Your task to perform on an android device: add a label to a message in the gmail app Image 0: 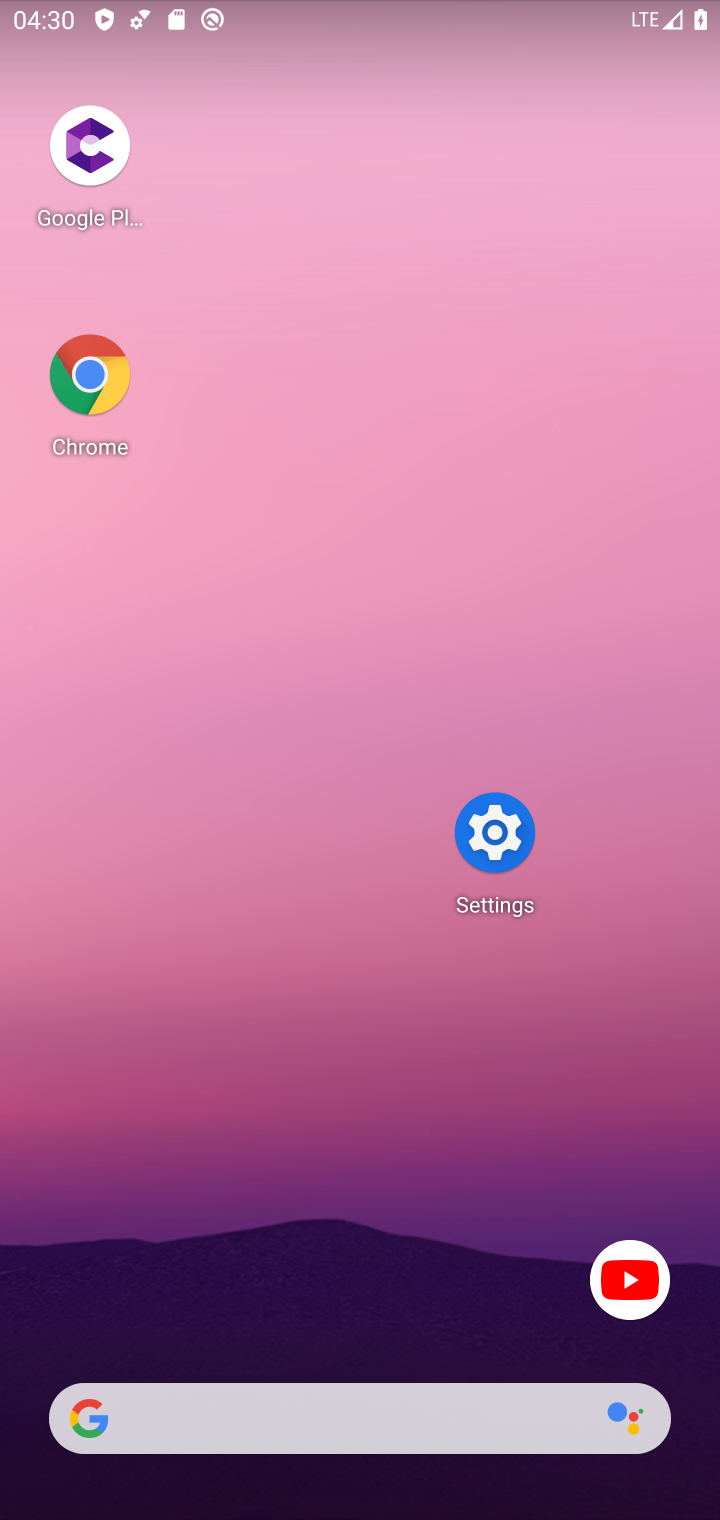
Step 0: click (308, 411)
Your task to perform on an android device: add a label to a message in the gmail app Image 1: 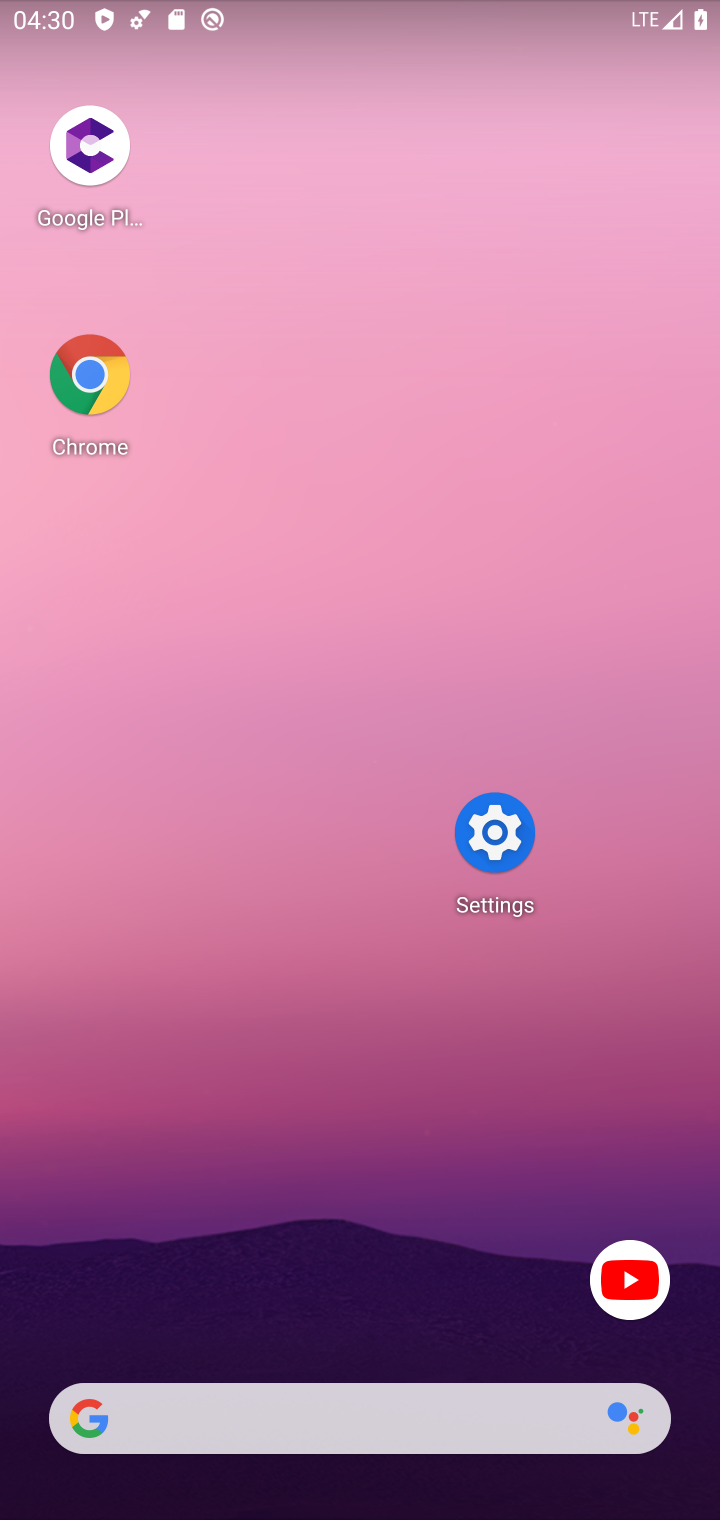
Step 1: click (377, 950)
Your task to perform on an android device: add a label to a message in the gmail app Image 2: 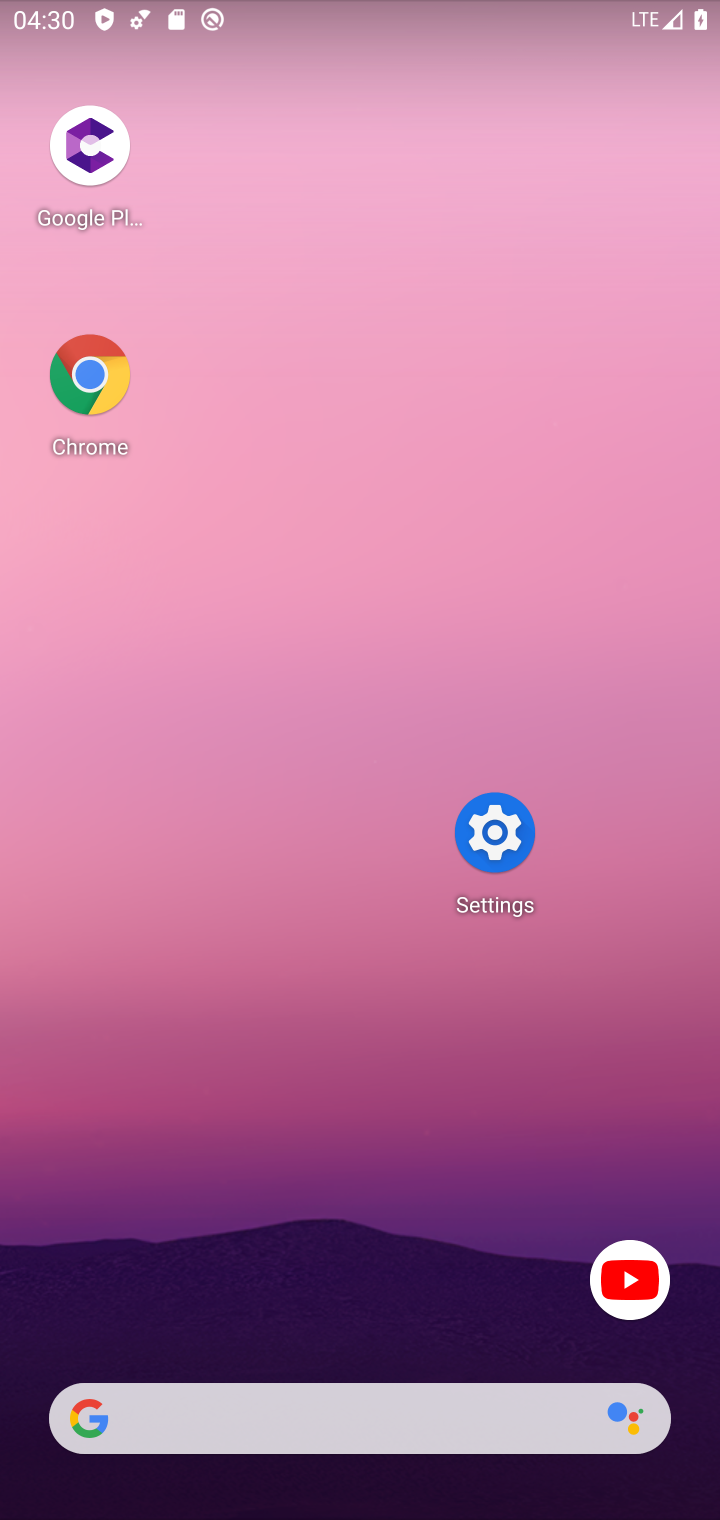
Step 2: drag from (280, 1057) to (531, 508)
Your task to perform on an android device: add a label to a message in the gmail app Image 3: 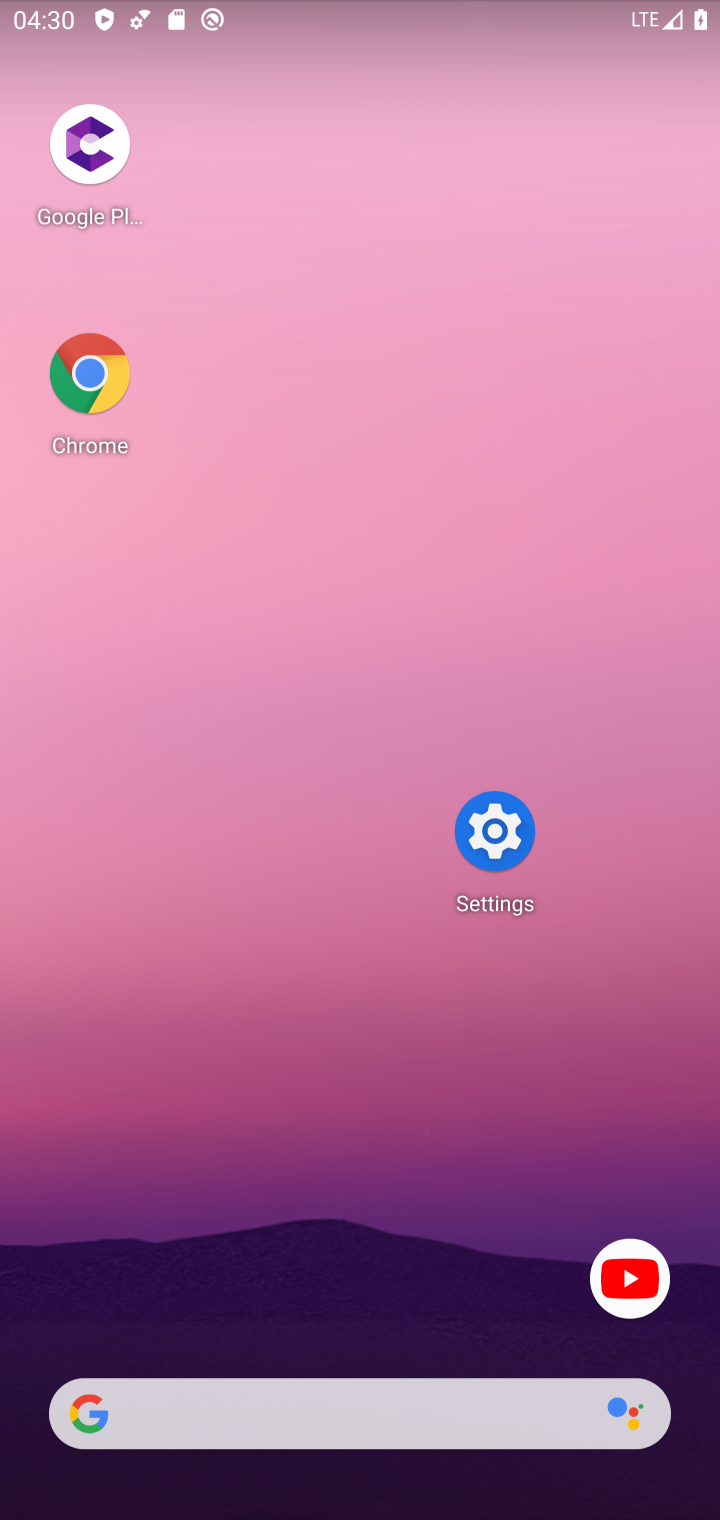
Step 3: drag from (501, 838) to (507, 377)
Your task to perform on an android device: add a label to a message in the gmail app Image 4: 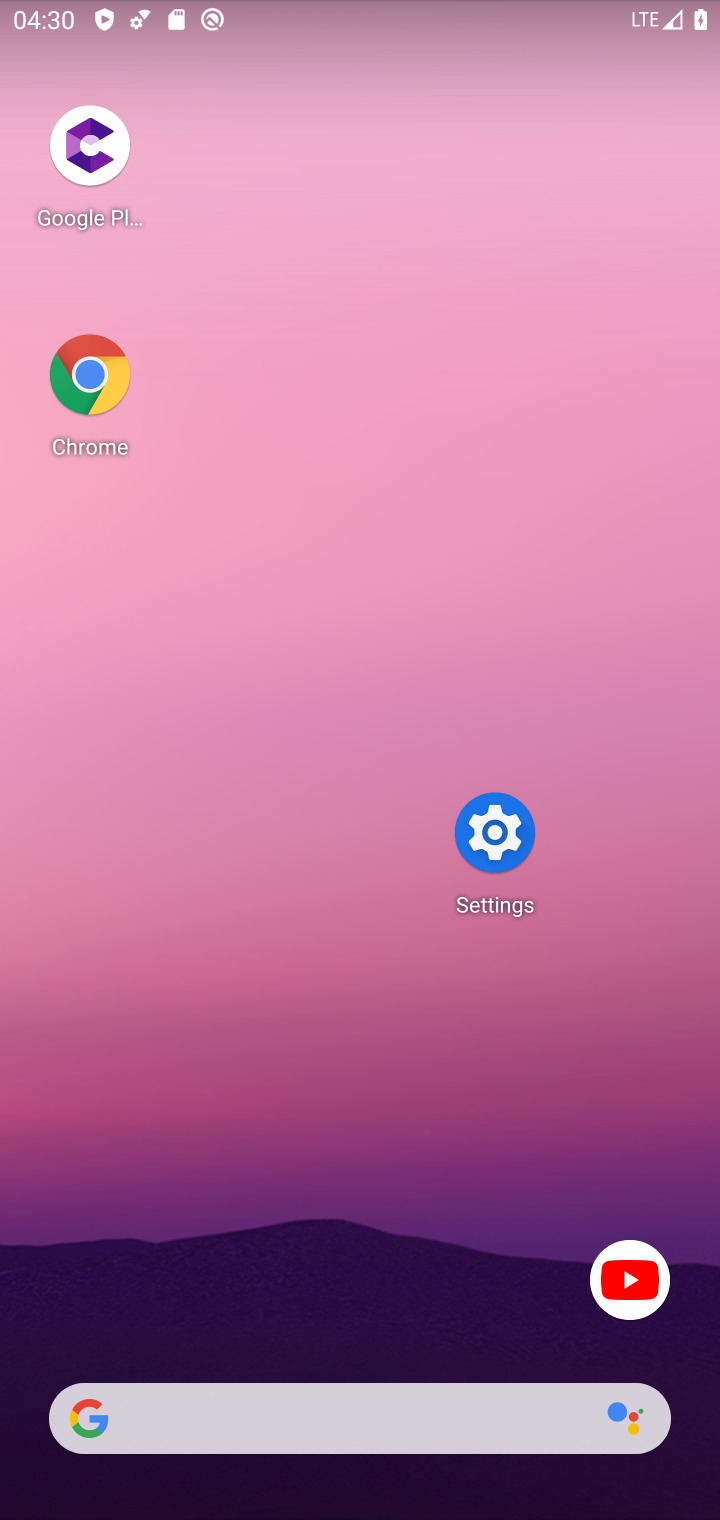
Step 4: click (427, 470)
Your task to perform on an android device: add a label to a message in the gmail app Image 5: 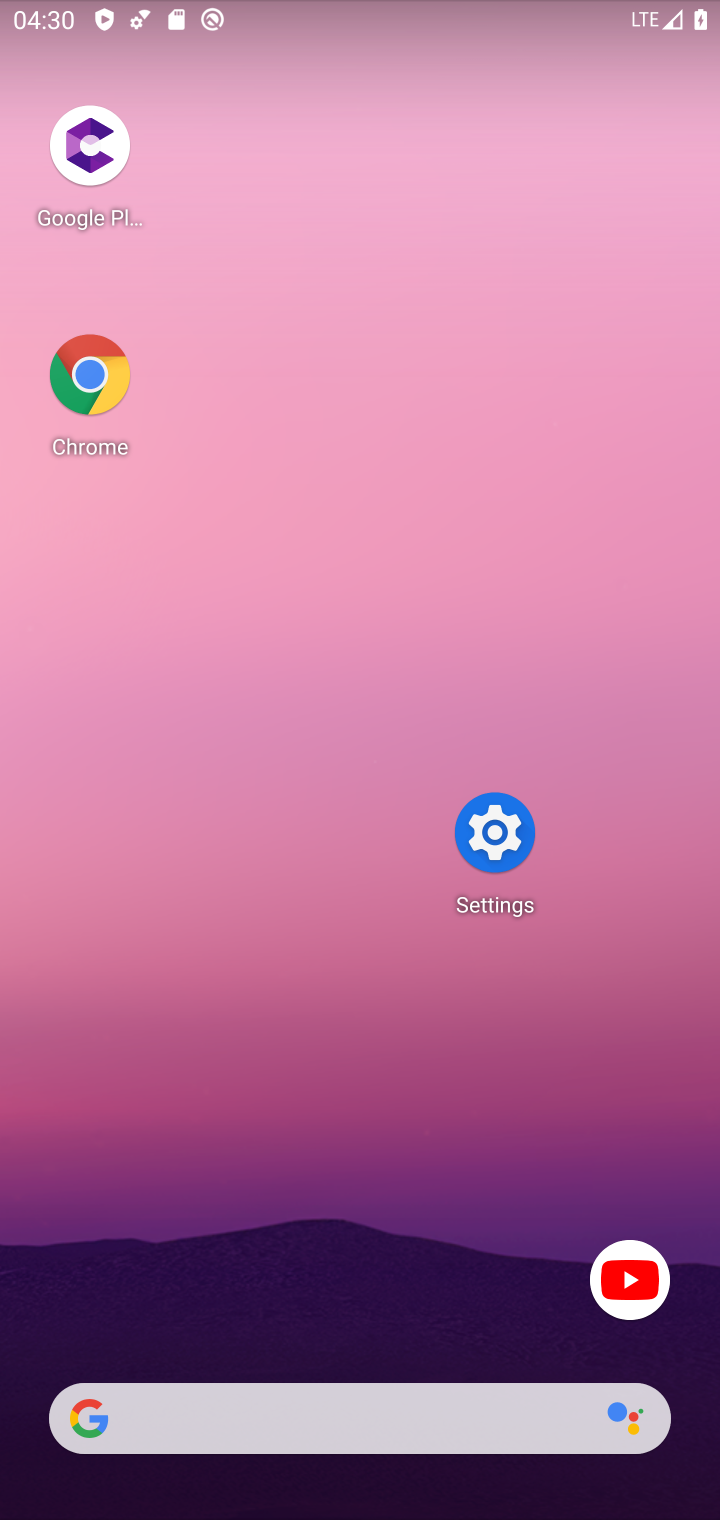
Step 5: drag from (316, 314) to (476, 234)
Your task to perform on an android device: add a label to a message in the gmail app Image 6: 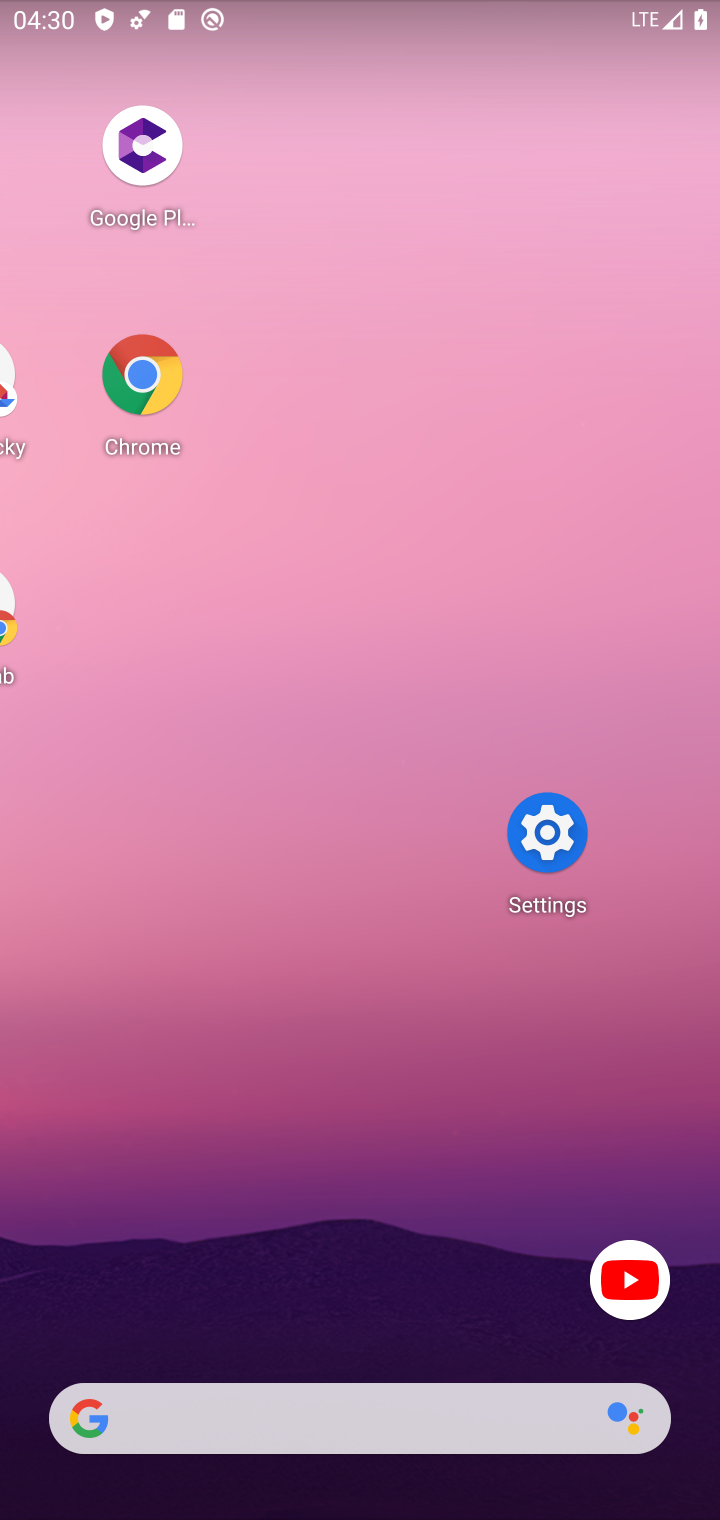
Step 6: drag from (327, 13) to (480, 548)
Your task to perform on an android device: add a label to a message in the gmail app Image 7: 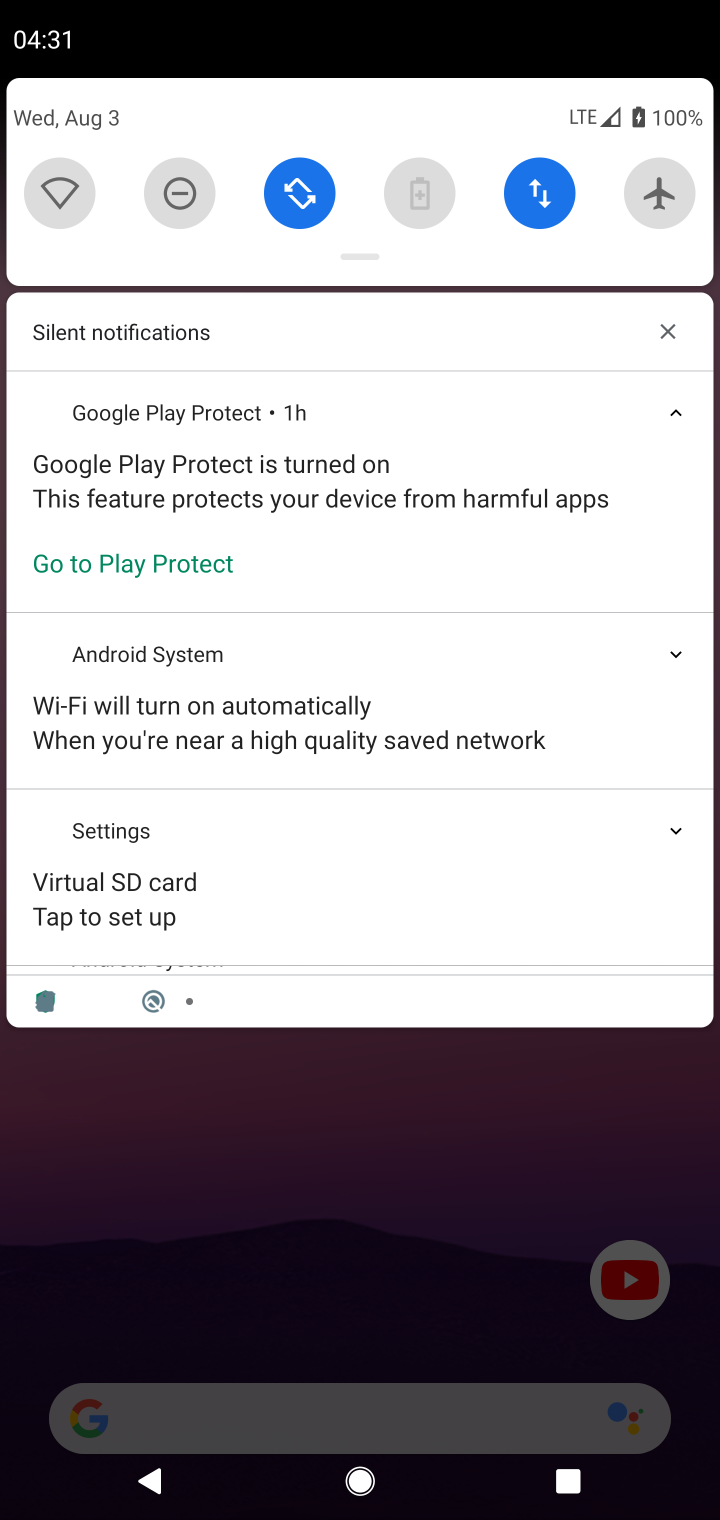
Step 7: drag from (549, 1117) to (541, 178)
Your task to perform on an android device: add a label to a message in the gmail app Image 8: 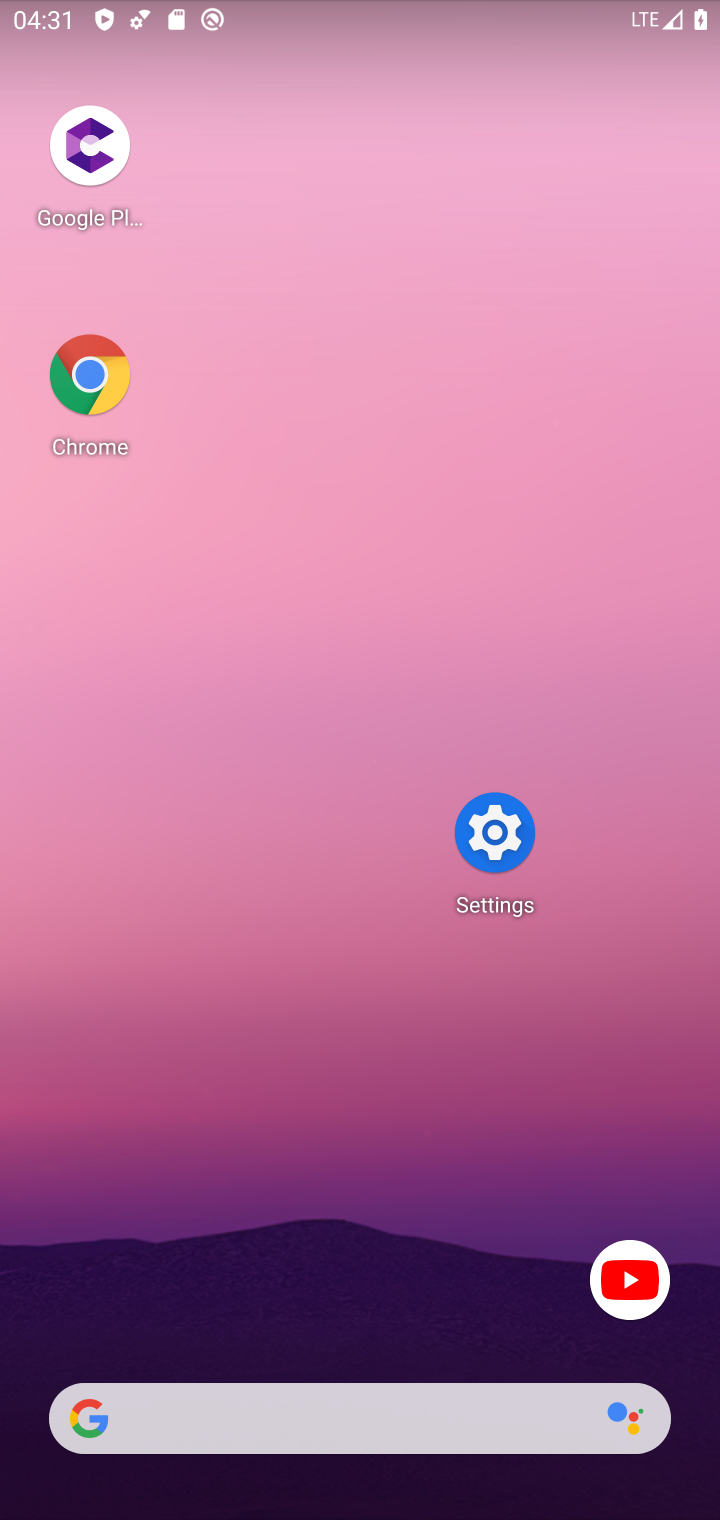
Step 8: click (23, 599)
Your task to perform on an android device: add a label to a message in the gmail app Image 9: 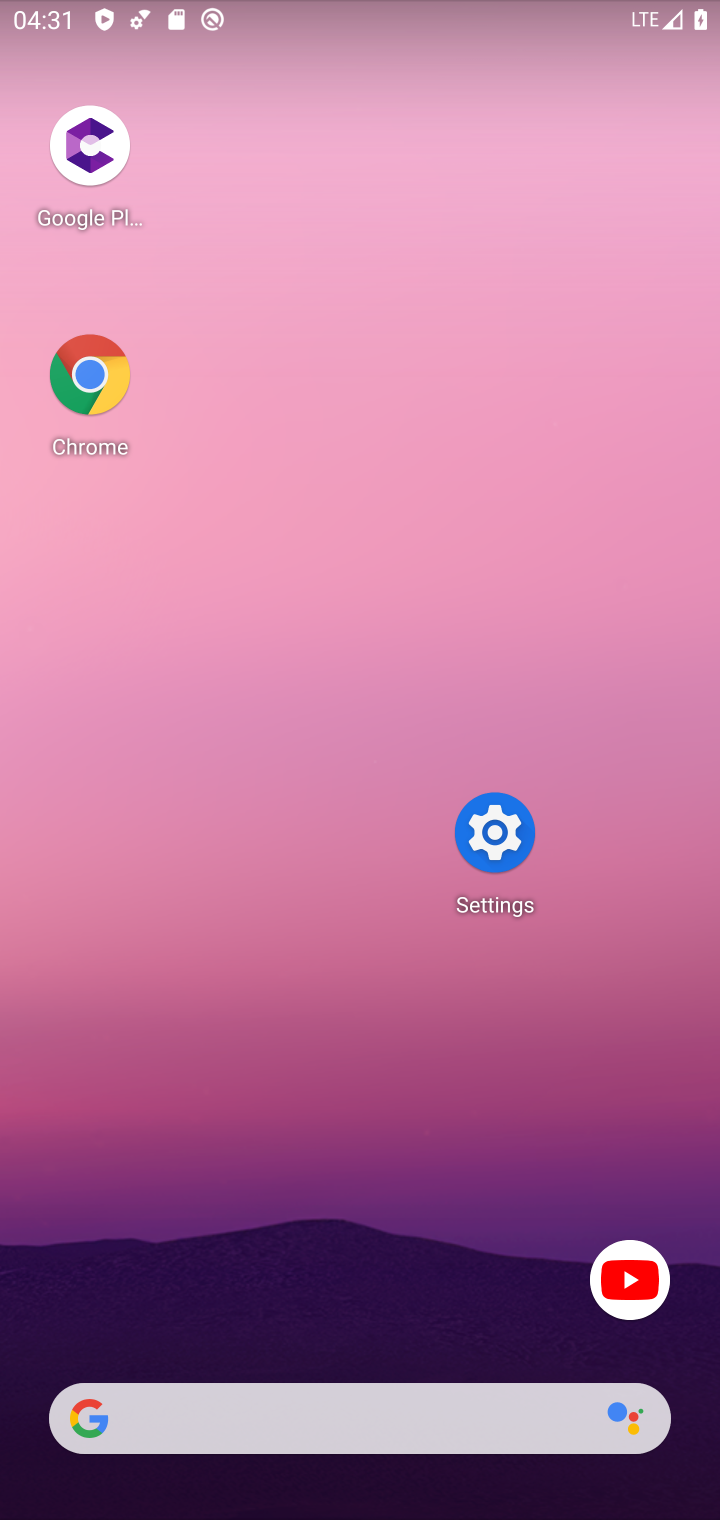
Step 9: press back button
Your task to perform on an android device: add a label to a message in the gmail app Image 10: 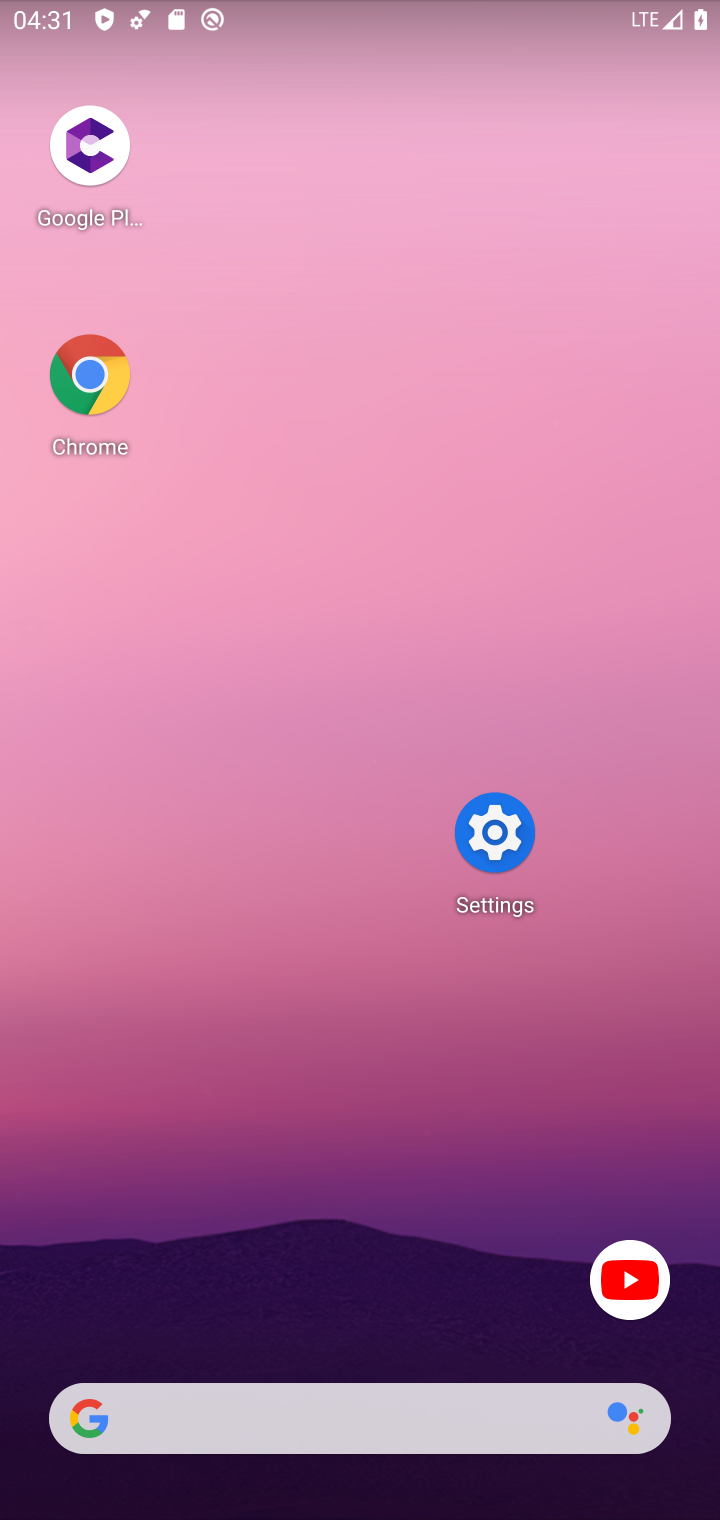
Step 10: drag from (418, 256) to (362, 331)
Your task to perform on an android device: add a label to a message in the gmail app Image 11: 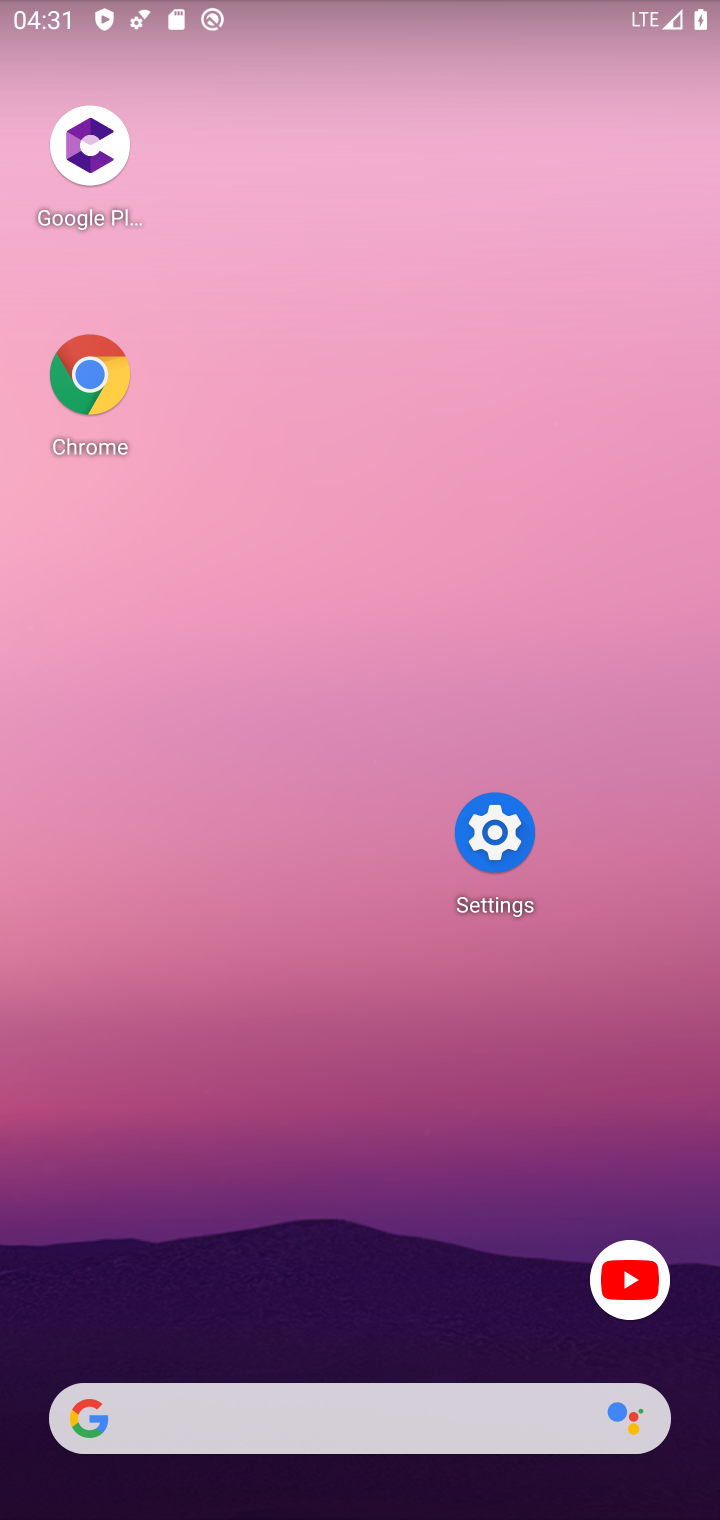
Step 11: drag from (468, 961) to (451, 57)
Your task to perform on an android device: add a label to a message in the gmail app Image 12: 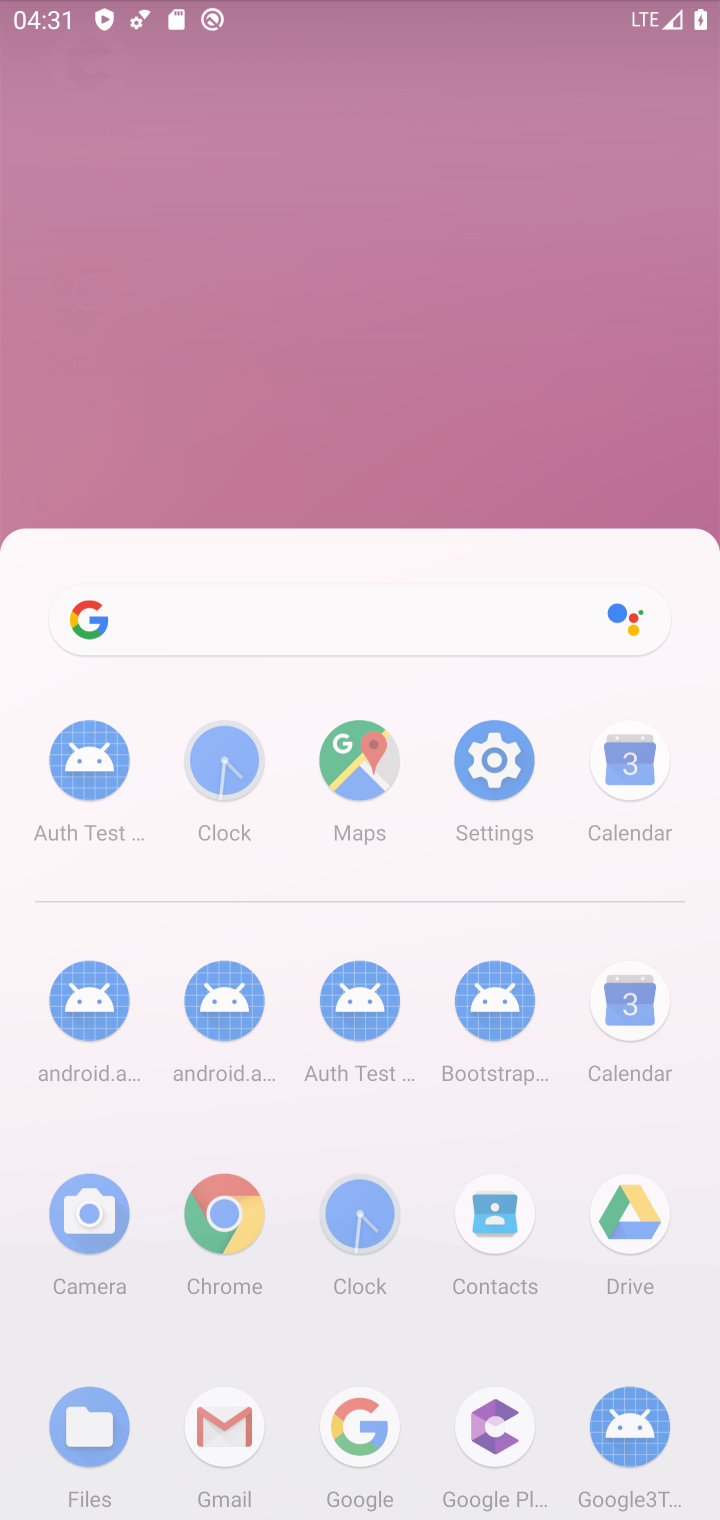
Step 12: drag from (419, 173) to (418, 30)
Your task to perform on an android device: add a label to a message in the gmail app Image 13: 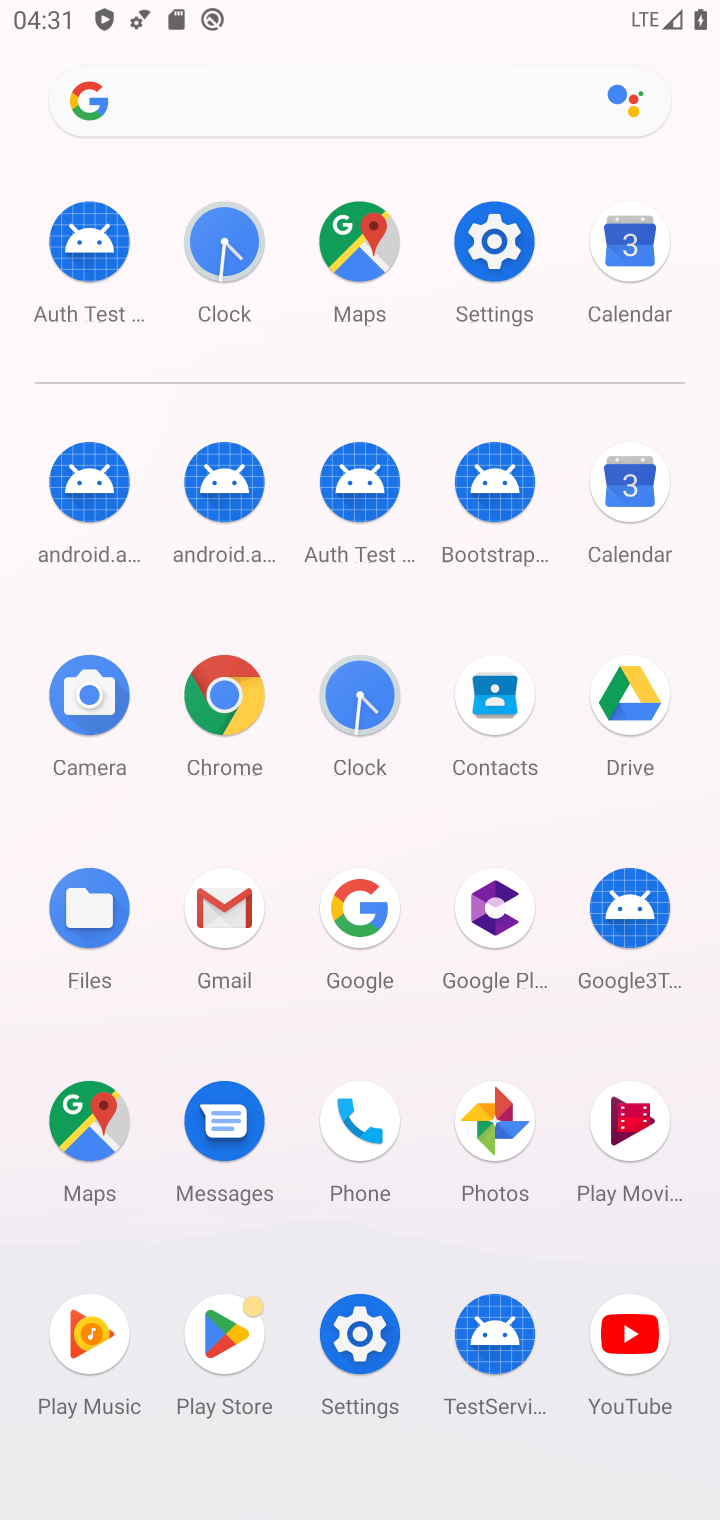
Step 13: click (221, 926)
Your task to perform on an android device: add a label to a message in the gmail app Image 14: 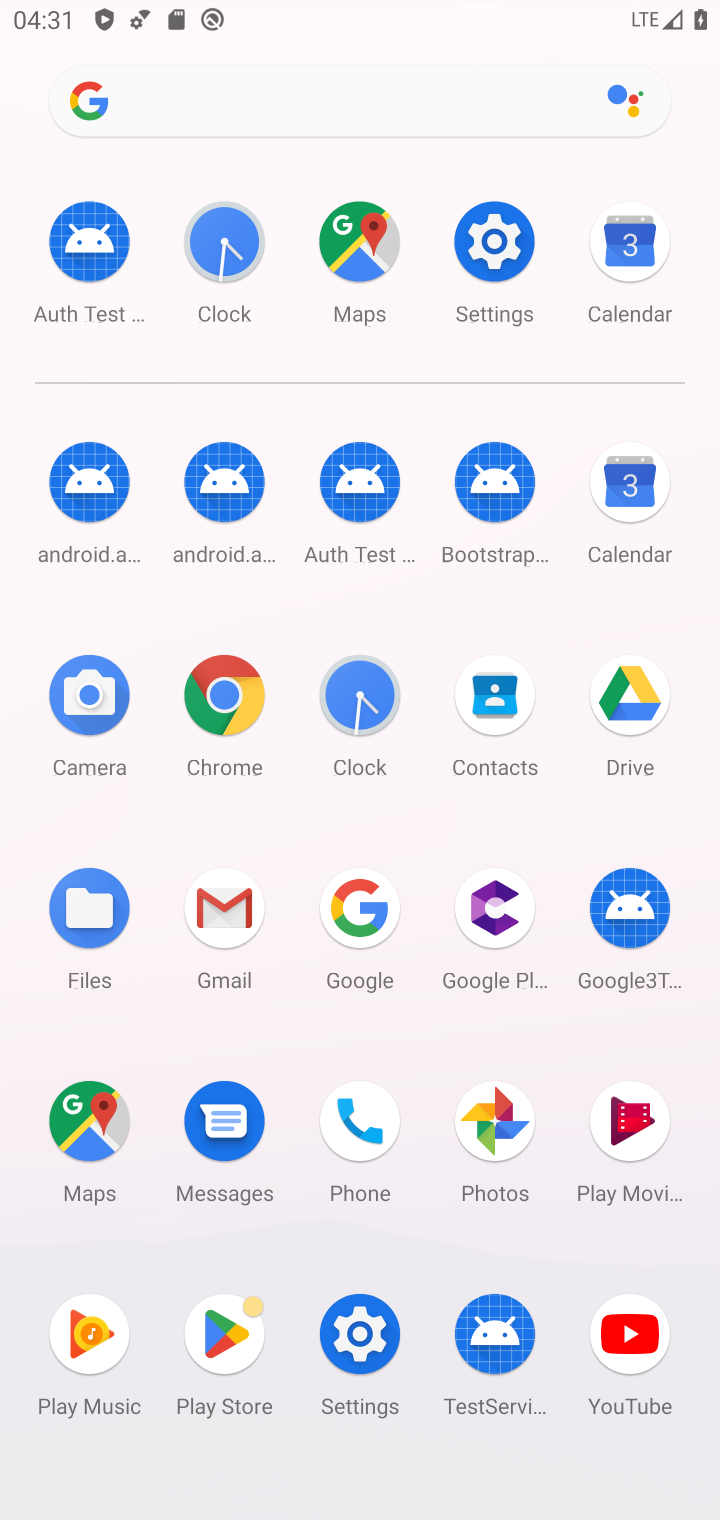
Step 14: click (230, 913)
Your task to perform on an android device: add a label to a message in the gmail app Image 15: 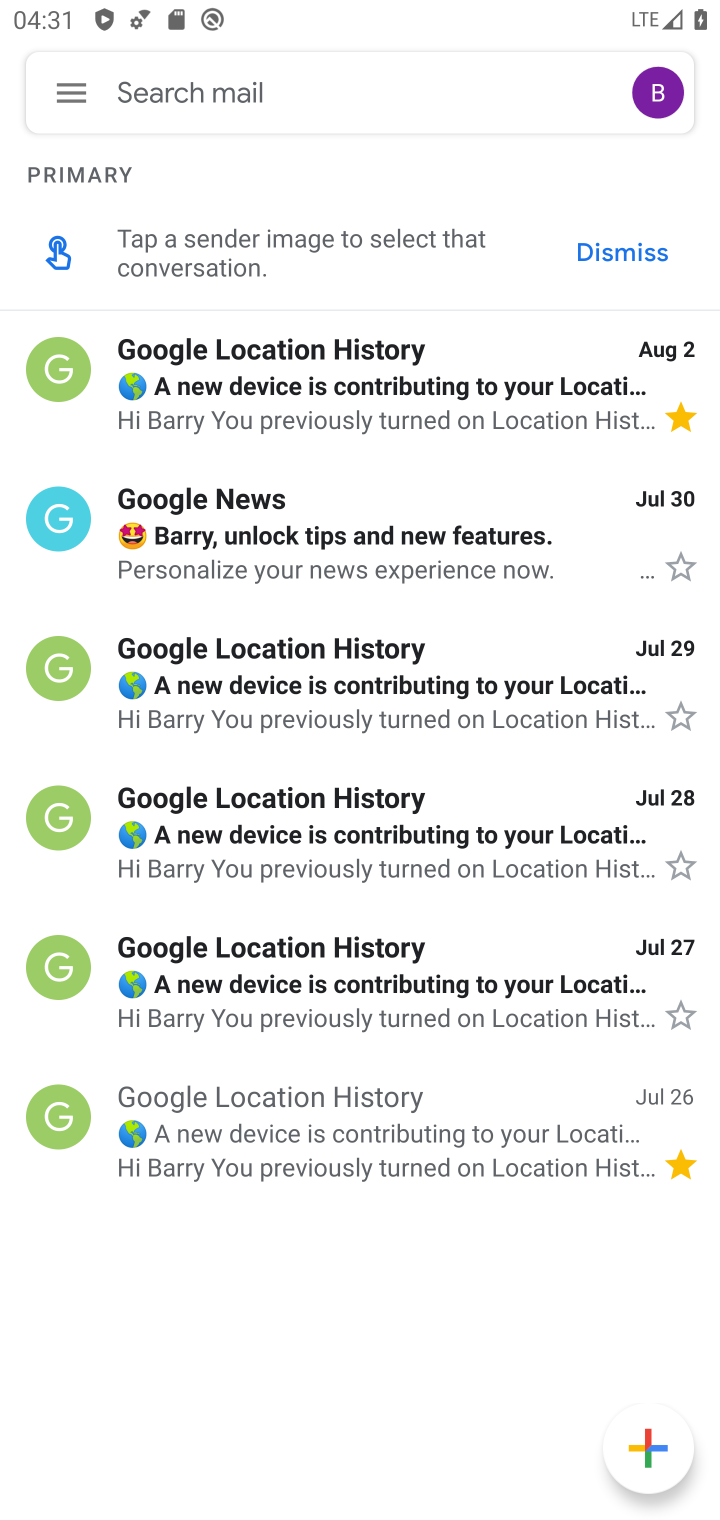
Step 15: click (234, 915)
Your task to perform on an android device: add a label to a message in the gmail app Image 16: 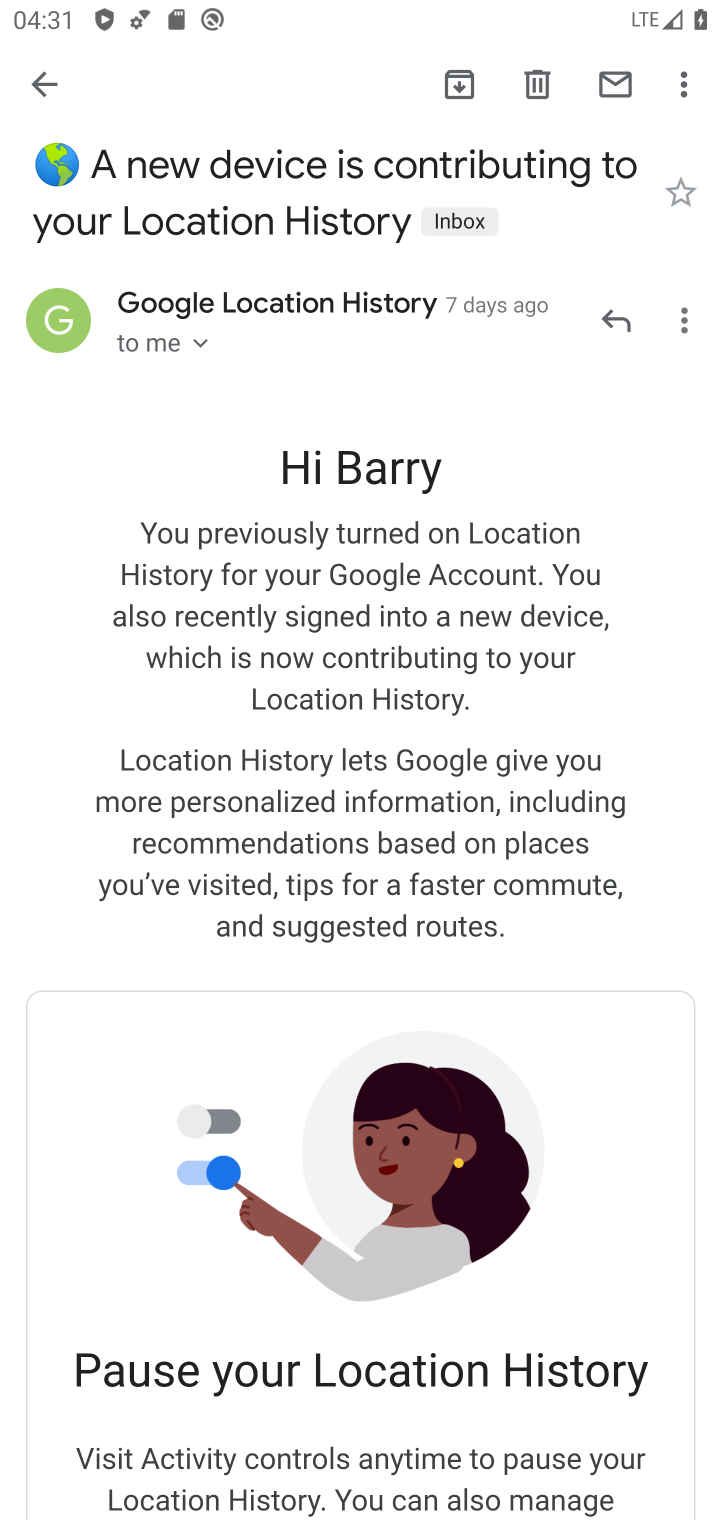
Step 16: click (37, 79)
Your task to perform on an android device: add a label to a message in the gmail app Image 17: 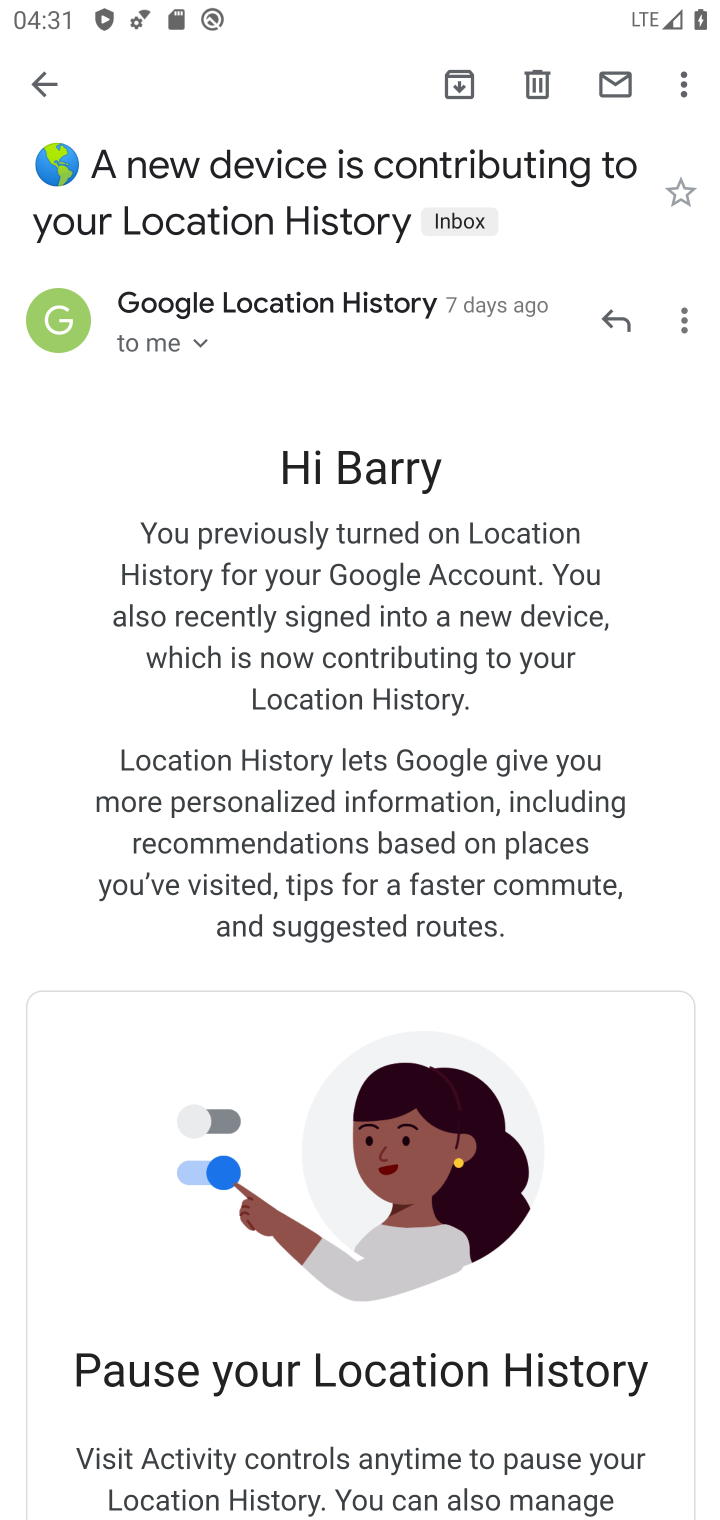
Step 17: click (37, 79)
Your task to perform on an android device: add a label to a message in the gmail app Image 18: 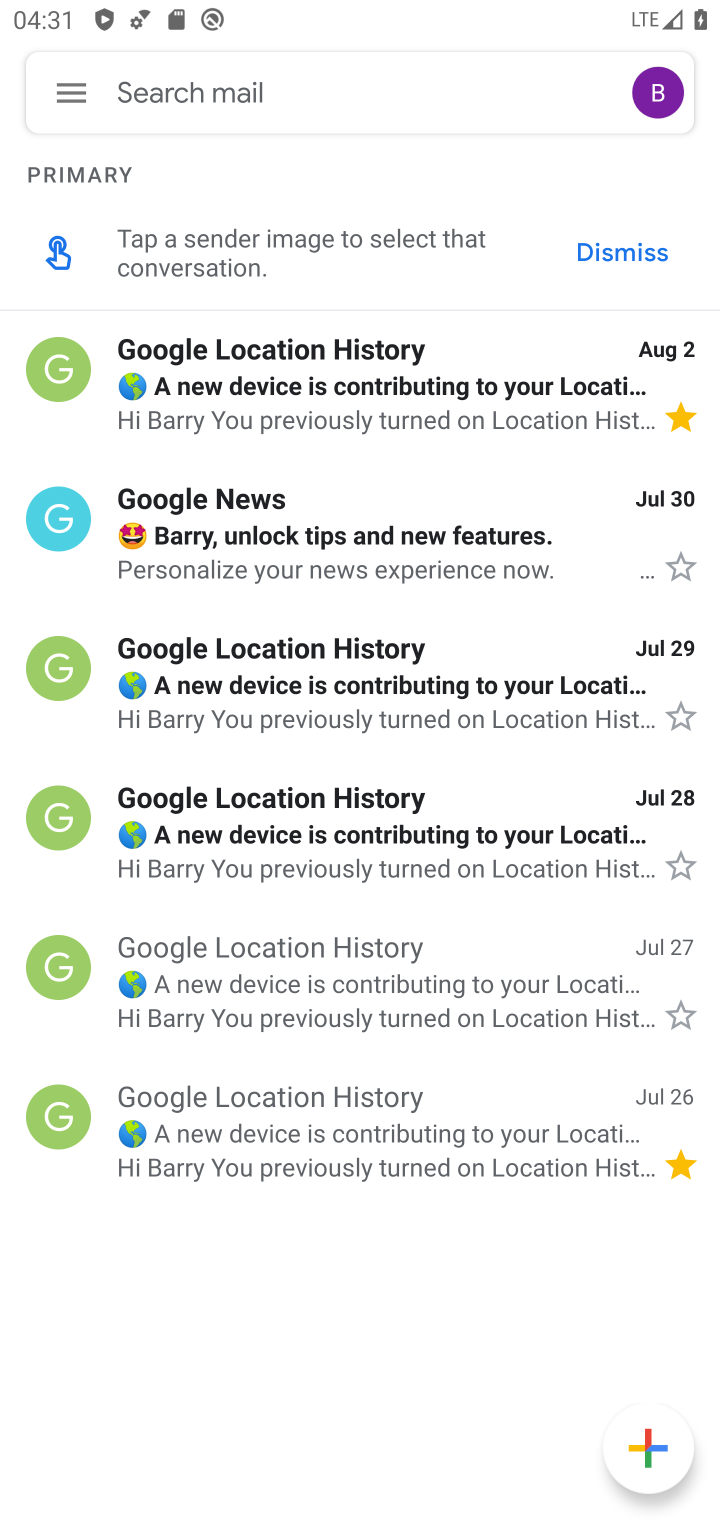
Step 18: press back button
Your task to perform on an android device: add a label to a message in the gmail app Image 19: 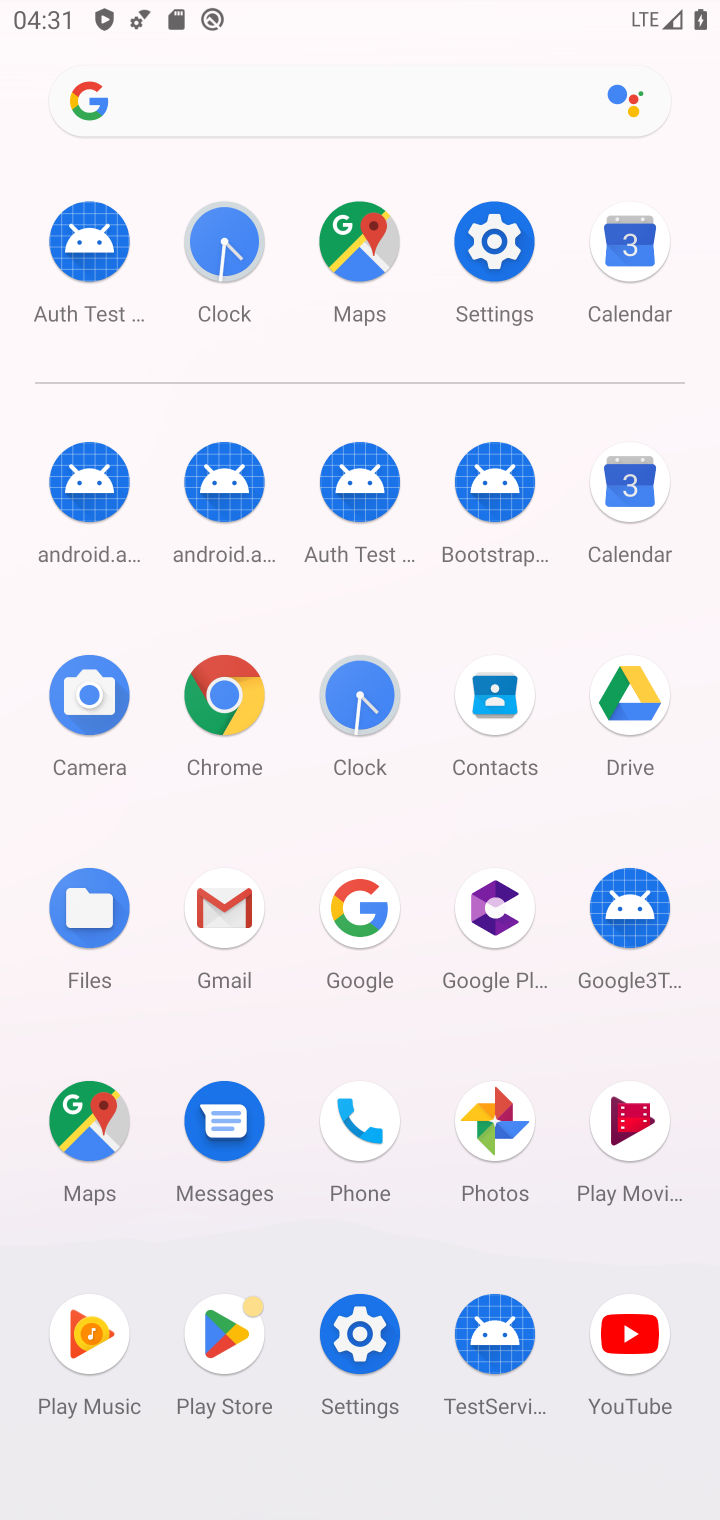
Step 19: click (682, 558)
Your task to perform on an android device: add a label to a message in the gmail app Image 20: 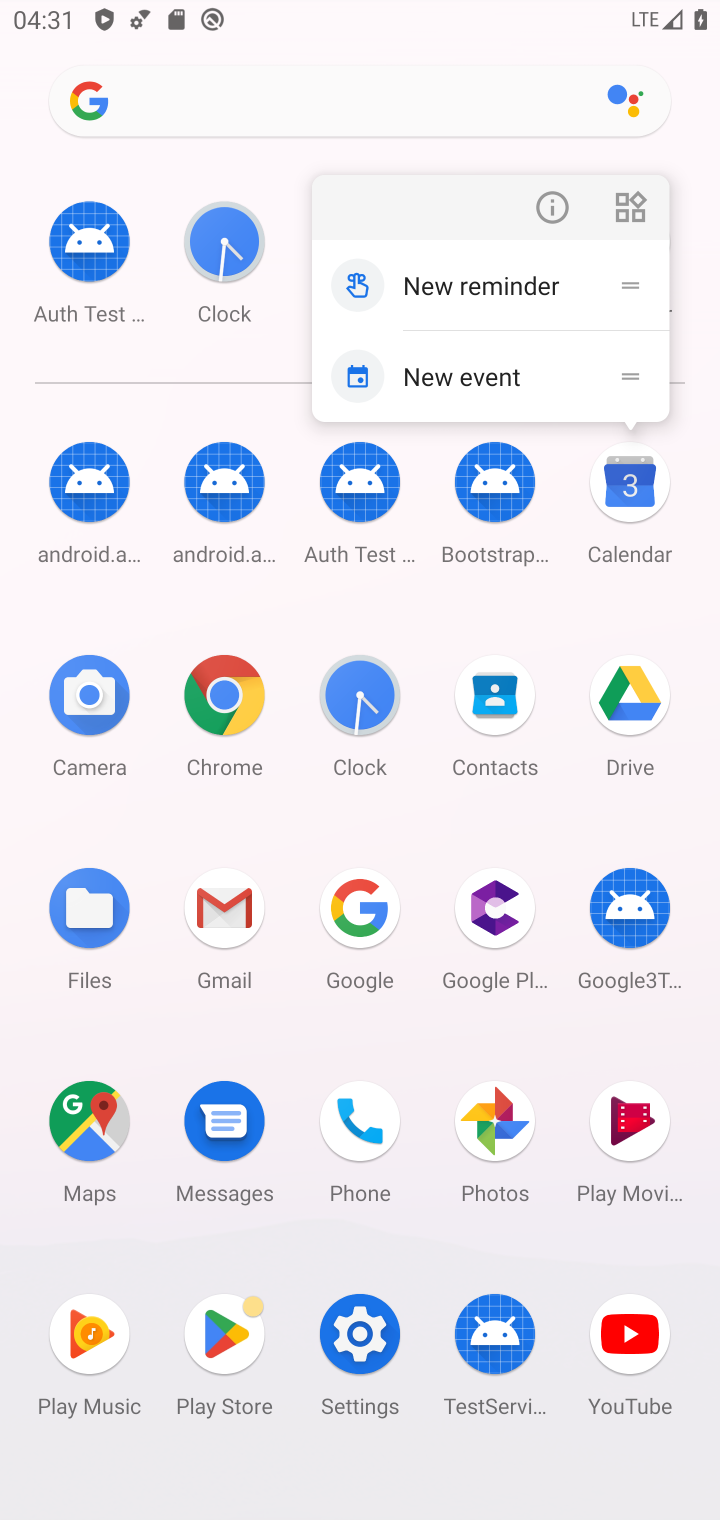
Step 20: click (211, 906)
Your task to perform on an android device: add a label to a message in the gmail app Image 21: 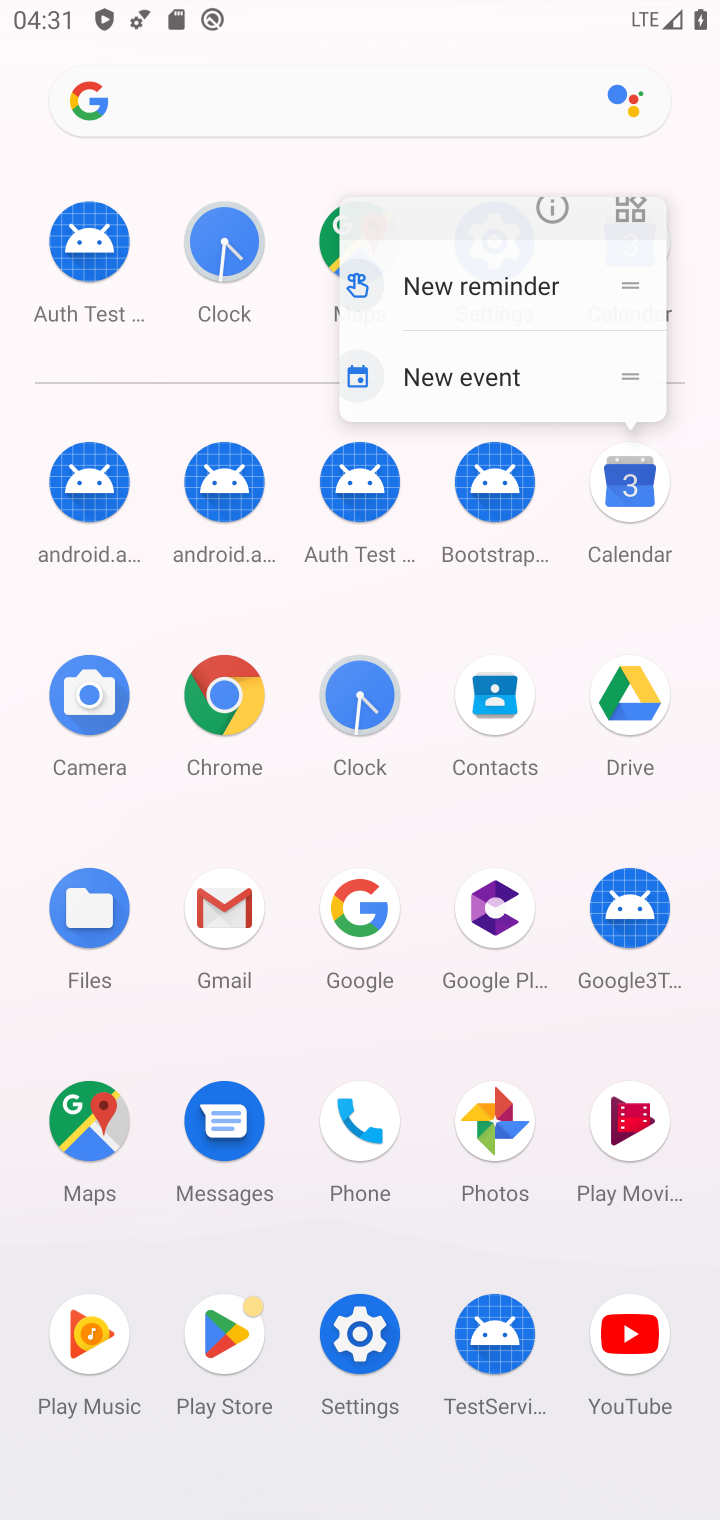
Step 21: click (209, 908)
Your task to perform on an android device: add a label to a message in the gmail app Image 22: 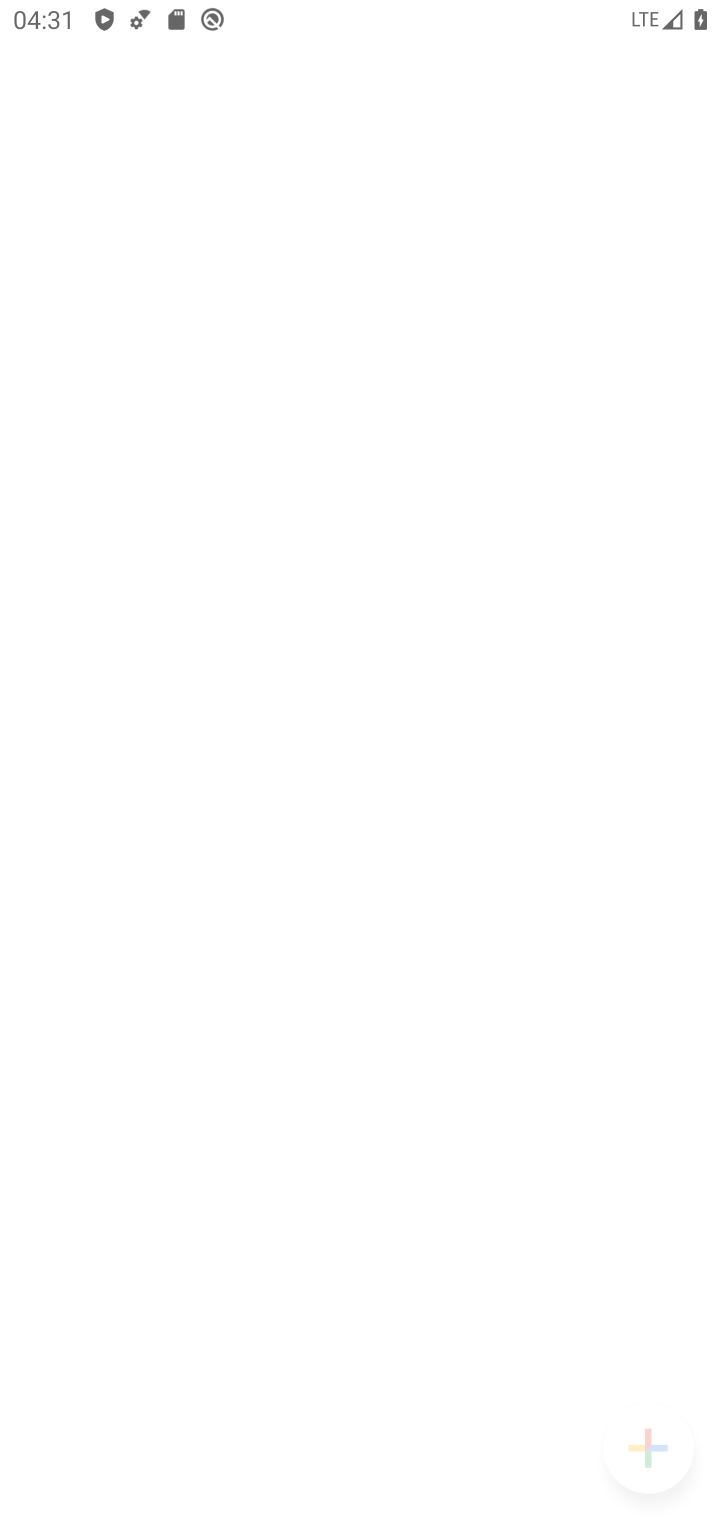
Step 22: click (227, 893)
Your task to perform on an android device: add a label to a message in the gmail app Image 23: 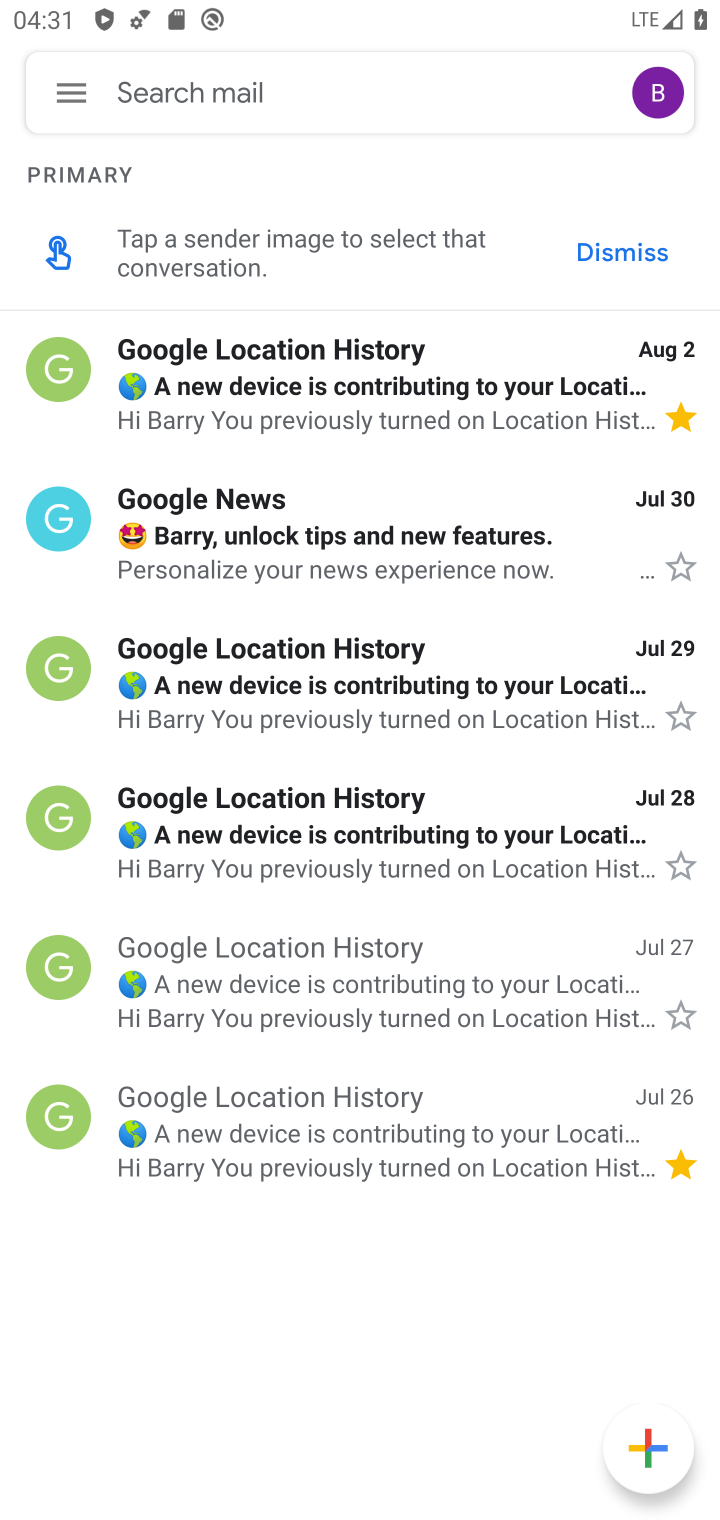
Step 23: click (665, 711)
Your task to perform on an android device: add a label to a message in the gmail app Image 24: 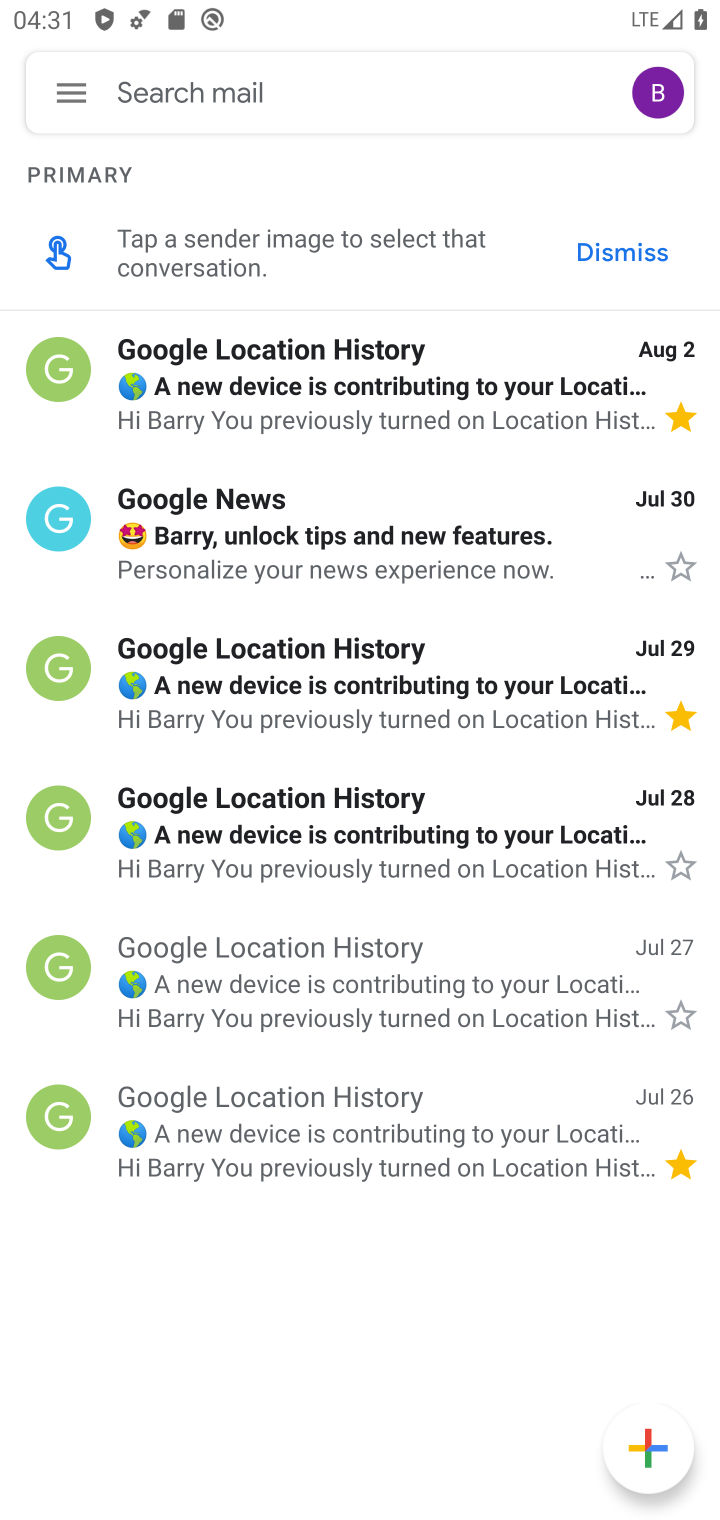
Step 24: task complete